Your task to perform on an android device: toggle javascript in the chrome app Image 0: 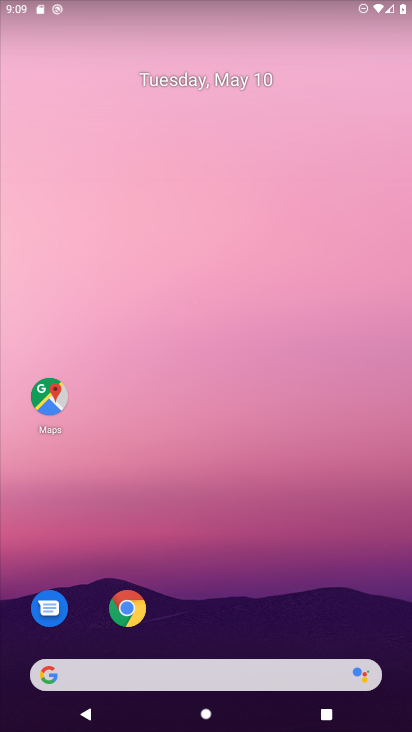
Step 0: drag from (355, 627) to (260, 6)
Your task to perform on an android device: toggle javascript in the chrome app Image 1: 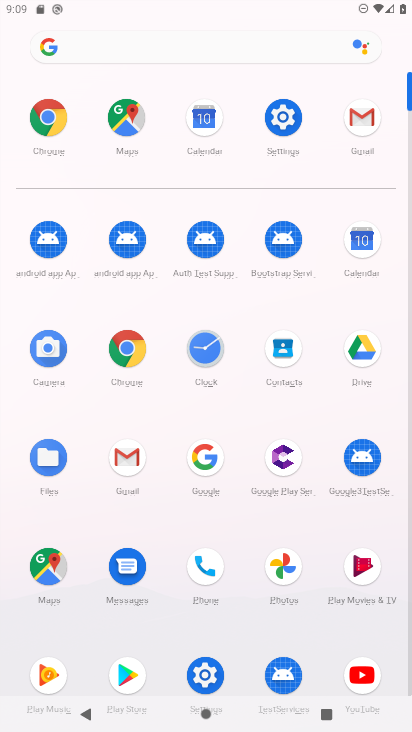
Step 1: click (52, 121)
Your task to perform on an android device: toggle javascript in the chrome app Image 2: 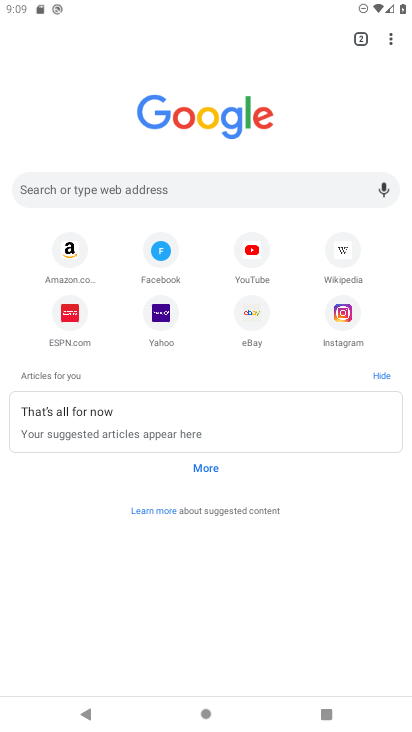
Step 2: click (388, 40)
Your task to perform on an android device: toggle javascript in the chrome app Image 3: 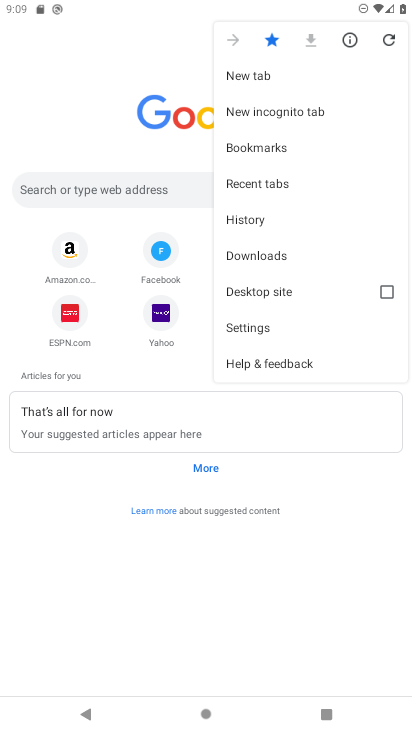
Step 3: click (307, 325)
Your task to perform on an android device: toggle javascript in the chrome app Image 4: 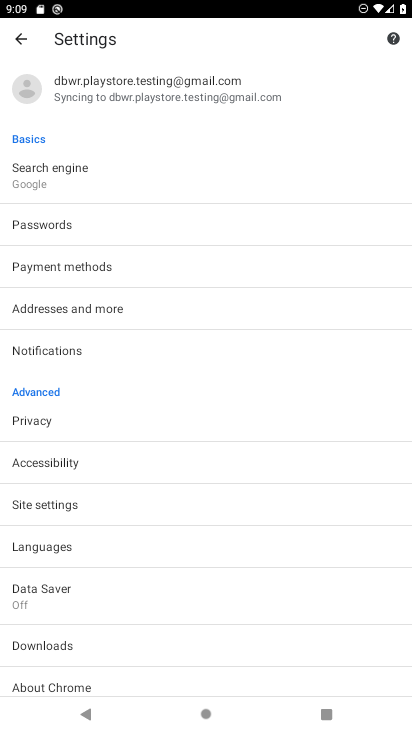
Step 4: click (94, 501)
Your task to perform on an android device: toggle javascript in the chrome app Image 5: 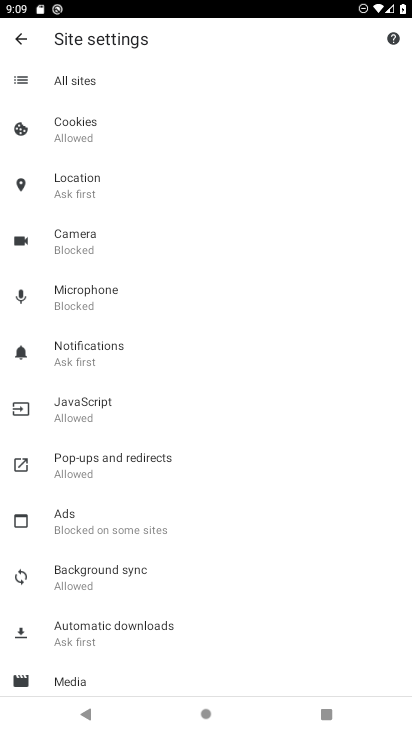
Step 5: click (109, 424)
Your task to perform on an android device: toggle javascript in the chrome app Image 6: 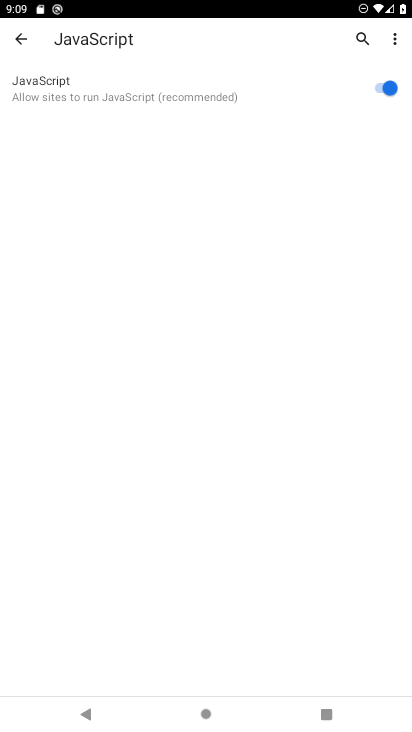
Step 6: click (371, 79)
Your task to perform on an android device: toggle javascript in the chrome app Image 7: 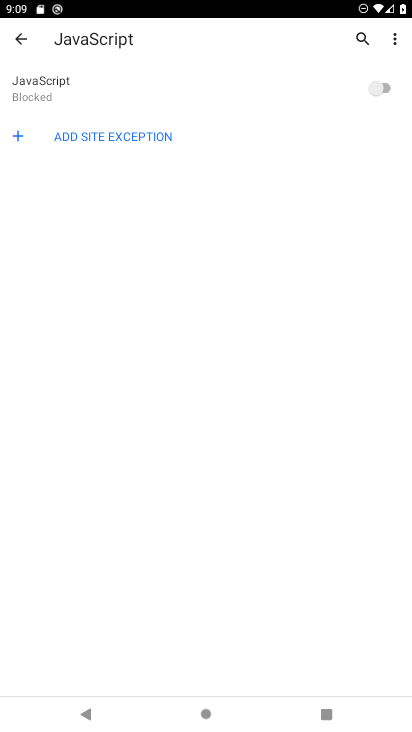
Step 7: task complete